Your task to perform on an android device: show emergency info Image 0: 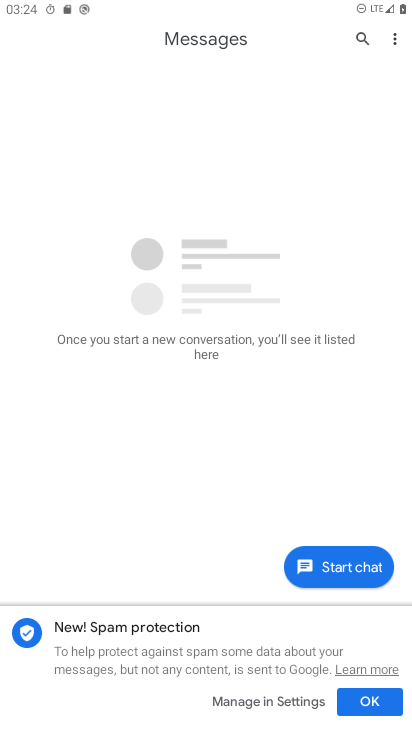
Step 0: press home button
Your task to perform on an android device: show emergency info Image 1: 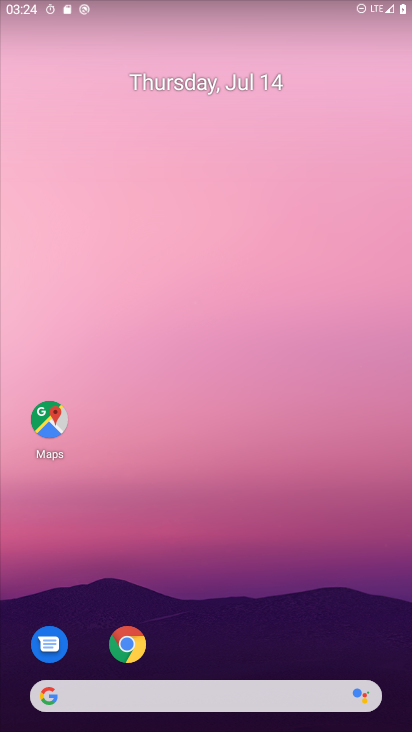
Step 1: drag from (292, 612) to (233, 32)
Your task to perform on an android device: show emergency info Image 2: 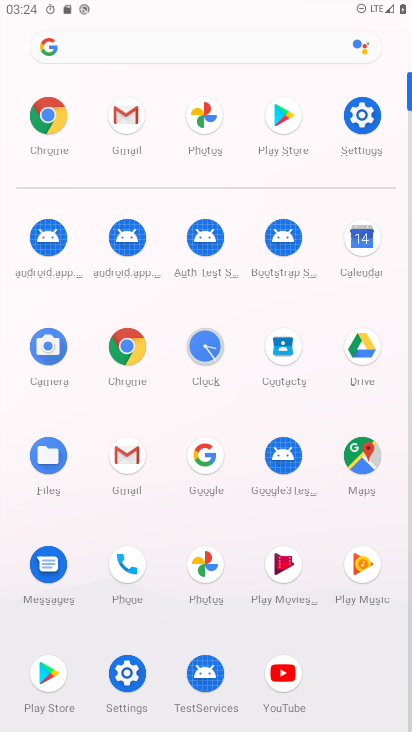
Step 2: click (356, 113)
Your task to perform on an android device: show emergency info Image 3: 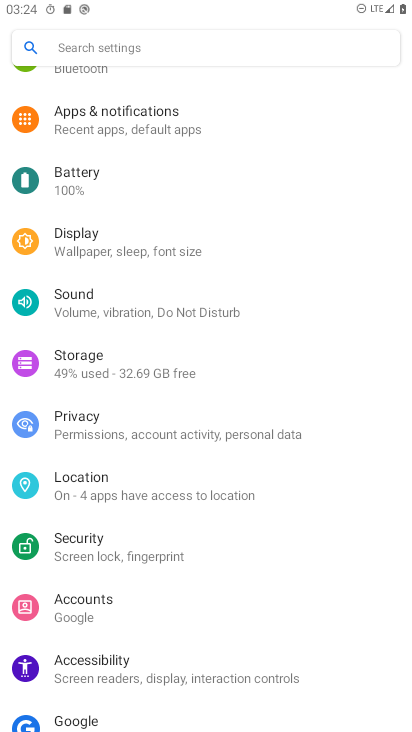
Step 3: drag from (257, 680) to (244, 22)
Your task to perform on an android device: show emergency info Image 4: 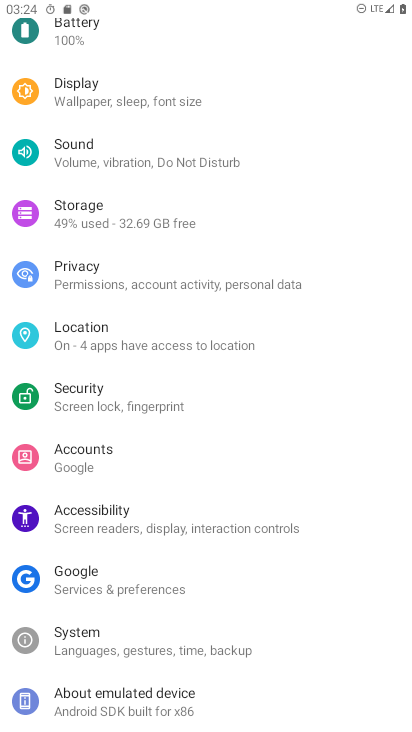
Step 4: click (138, 696)
Your task to perform on an android device: show emergency info Image 5: 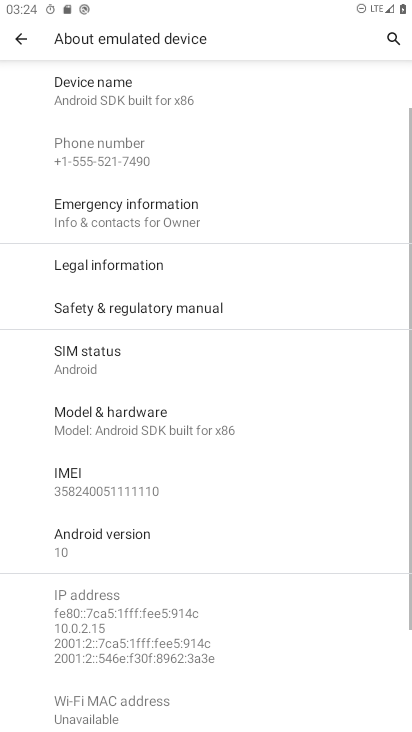
Step 5: click (148, 209)
Your task to perform on an android device: show emergency info Image 6: 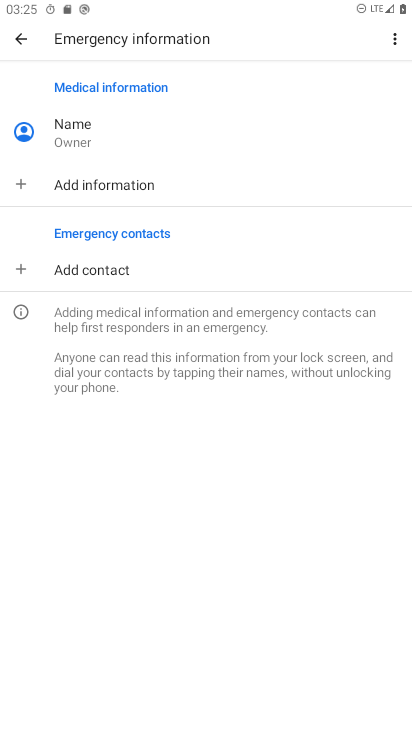
Step 6: task complete